Your task to perform on an android device: check storage Image 0: 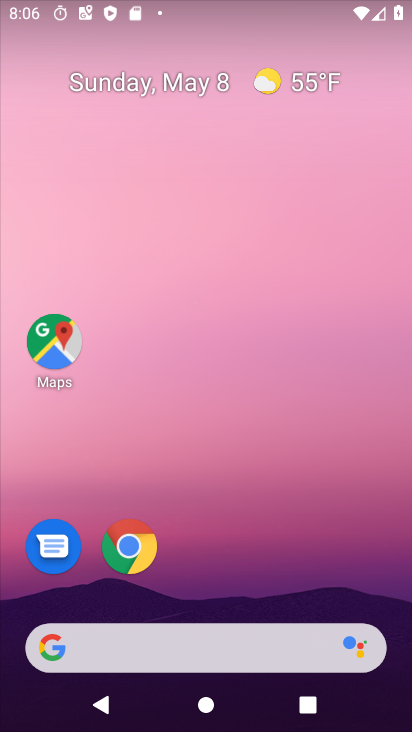
Step 0: drag from (277, 458) to (279, 0)
Your task to perform on an android device: check storage Image 1: 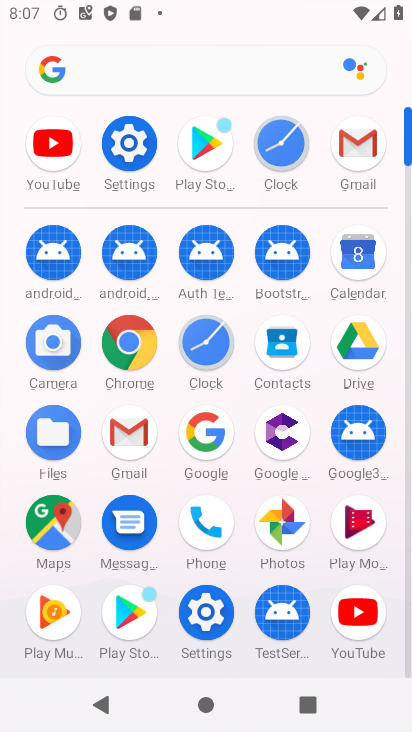
Step 1: click (145, 134)
Your task to perform on an android device: check storage Image 2: 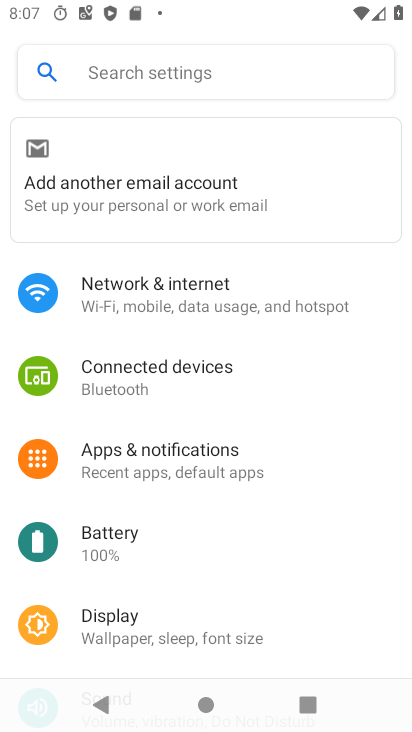
Step 2: drag from (149, 509) to (183, 197)
Your task to perform on an android device: check storage Image 3: 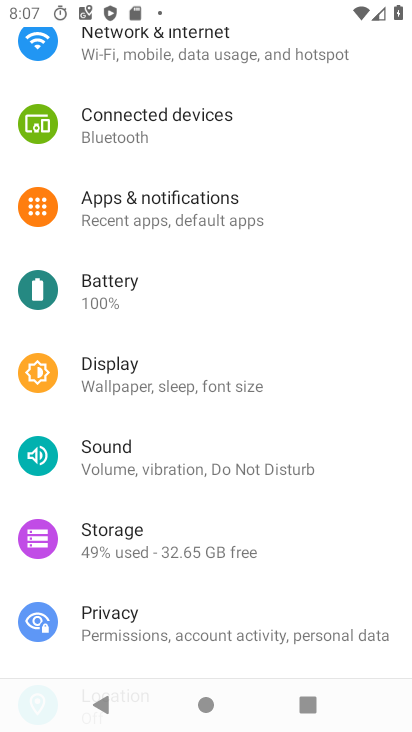
Step 3: click (175, 528)
Your task to perform on an android device: check storage Image 4: 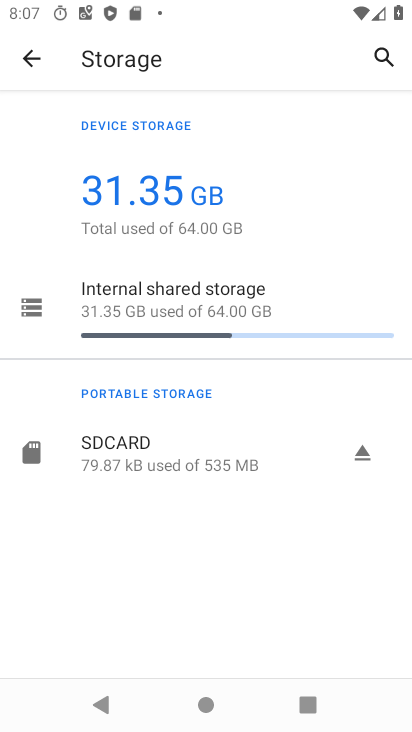
Step 4: task complete